Your task to perform on an android device: find photos in the google photos app Image 0: 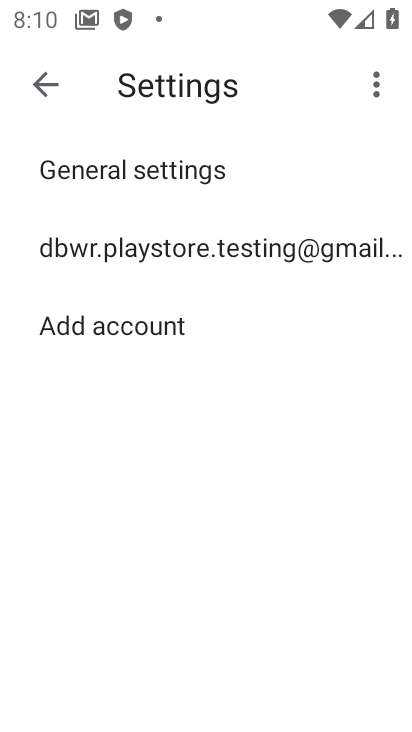
Step 0: press home button
Your task to perform on an android device: find photos in the google photos app Image 1: 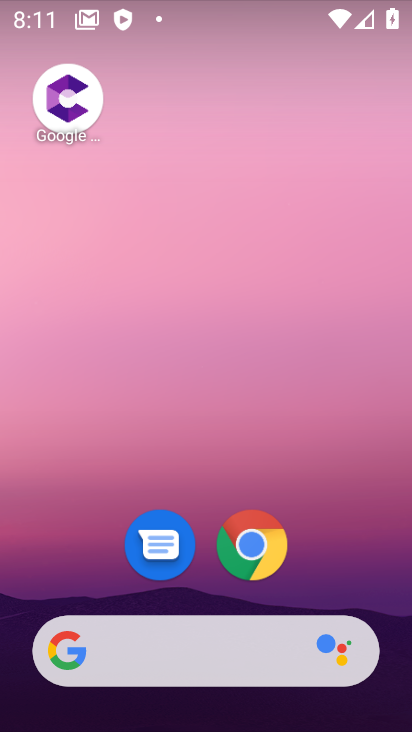
Step 1: drag from (336, 542) to (296, 12)
Your task to perform on an android device: find photos in the google photos app Image 2: 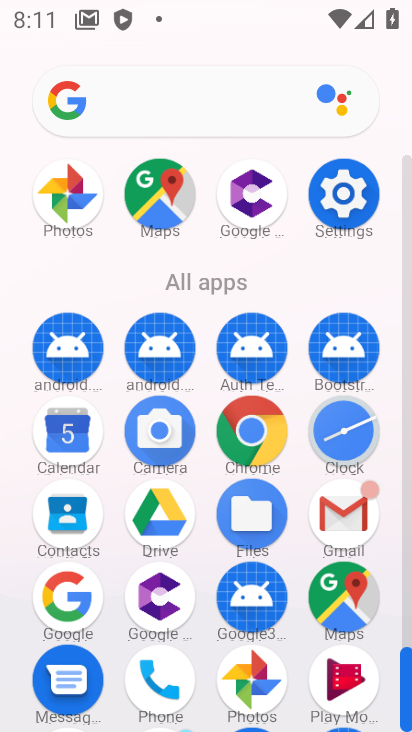
Step 2: drag from (203, 486) to (200, 260)
Your task to perform on an android device: find photos in the google photos app Image 3: 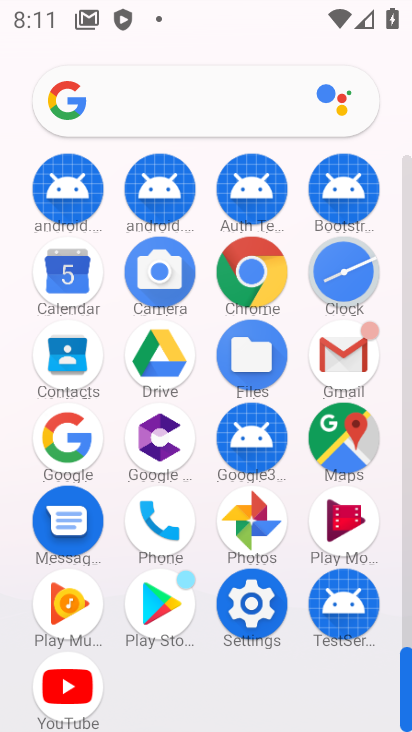
Step 3: click (251, 520)
Your task to perform on an android device: find photos in the google photos app Image 4: 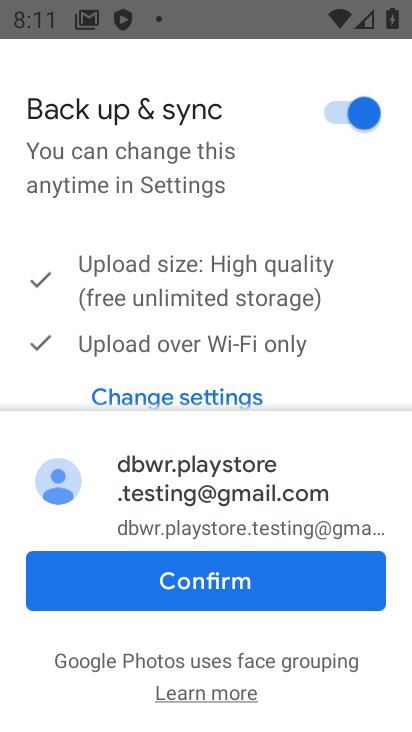
Step 4: click (220, 597)
Your task to perform on an android device: find photos in the google photos app Image 5: 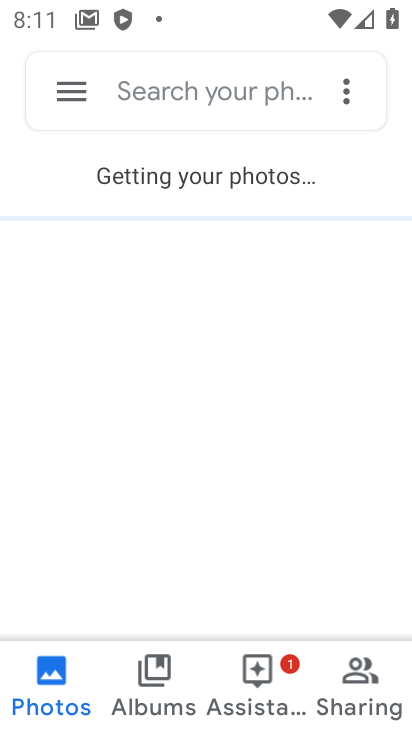
Step 5: click (167, 659)
Your task to perform on an android device: find photos in the google photos app Image 6: 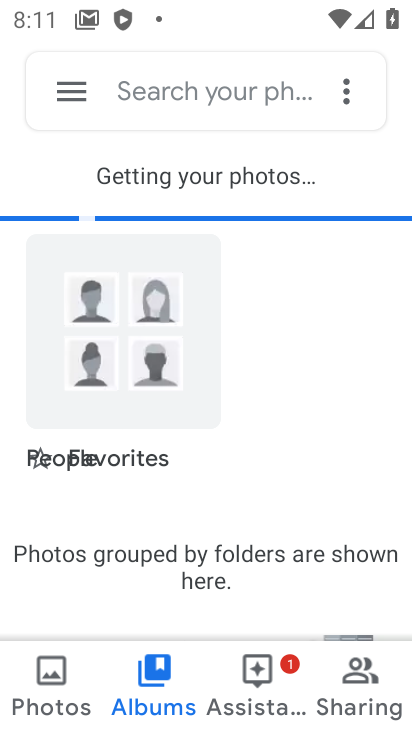
Step 6: click (145, 368)
Your task to perform on an android device: find photos in the google photos app Image 7: 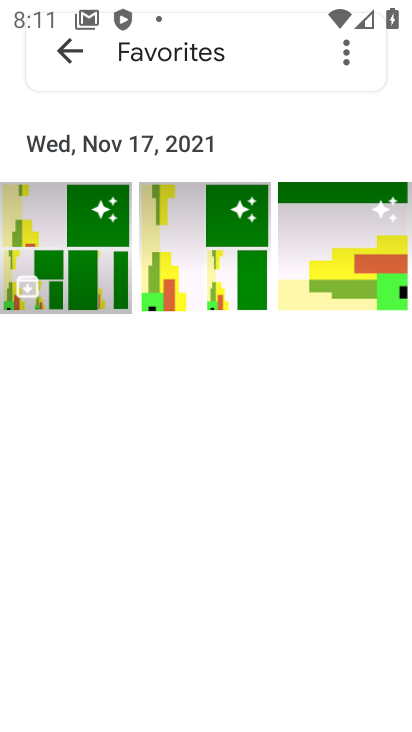
Step 7: task complete